Your task to perform on an android device: turn on sleep mode Image 0: 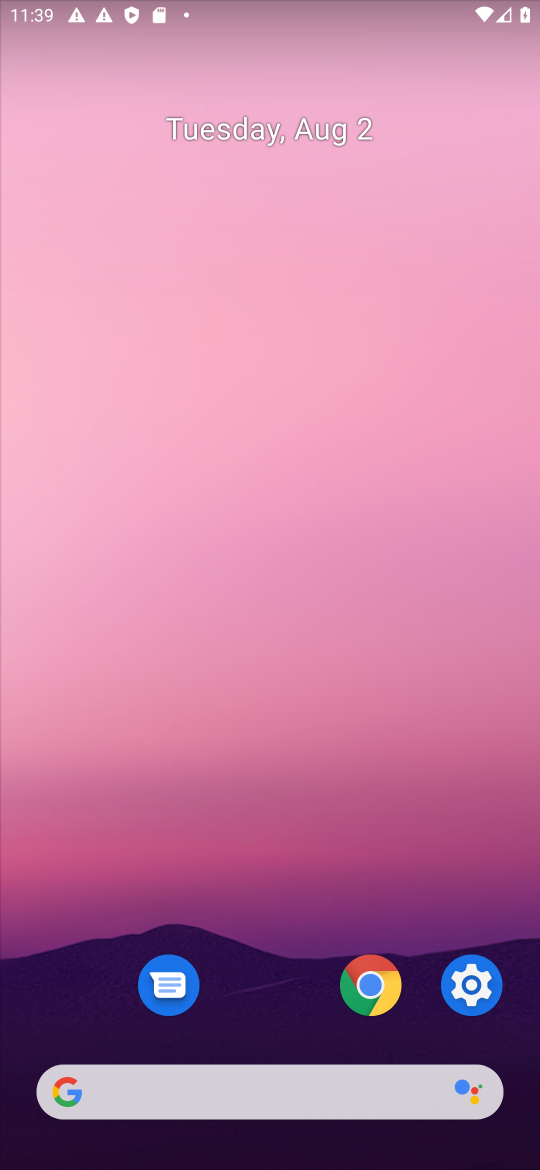
Step 0: press home button
Your task to perform on an android device: turn on sleep mode Image 1: 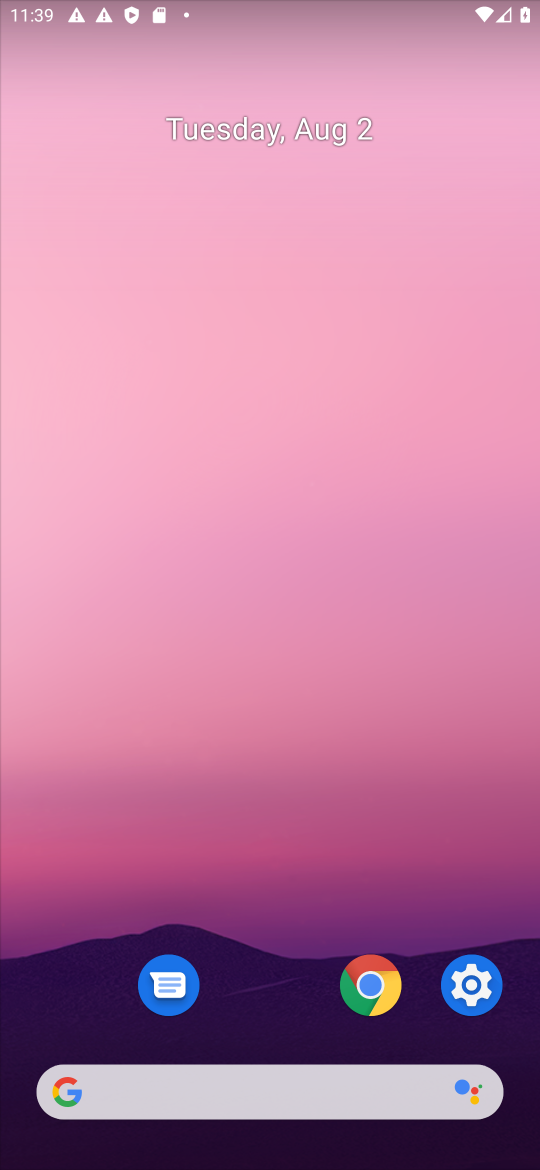
Step 1: click (449, 990)
Your task to perform on an android device: turn on sleep mode Image 2: 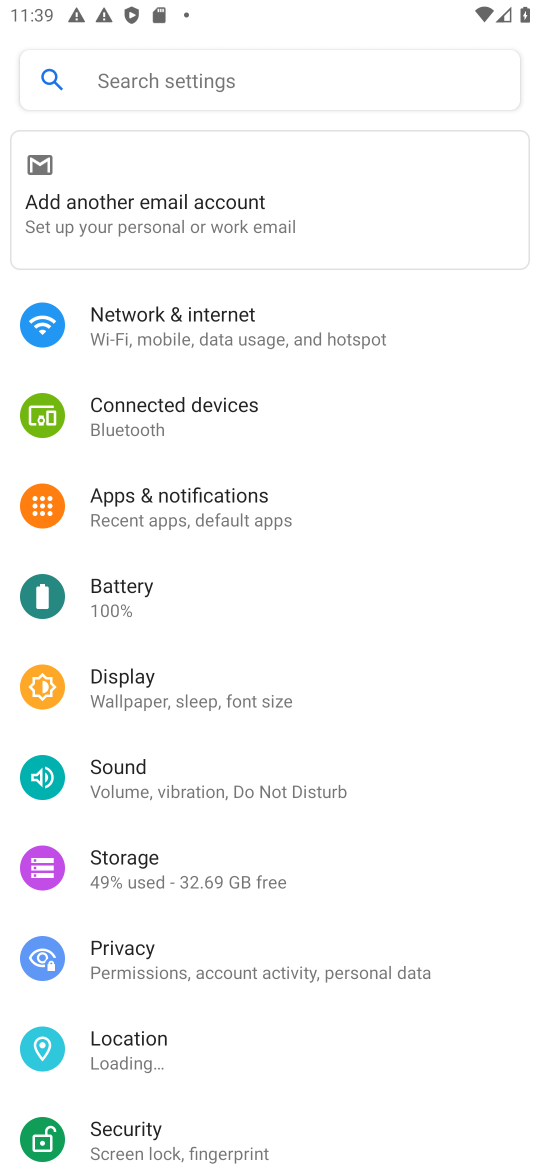
Step 2: click (144, 89)
Your task to perform on an android device: turn on sleep mode Image 3: 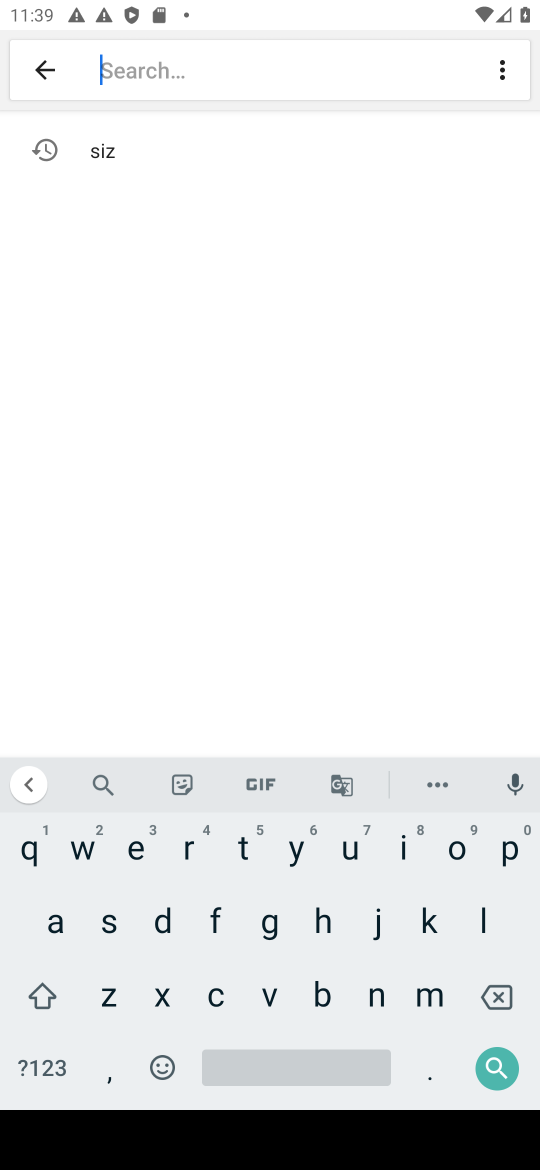
Step 3: click (97, 938)
Your task to perform on an android device: turn on sleep mode Image 4: 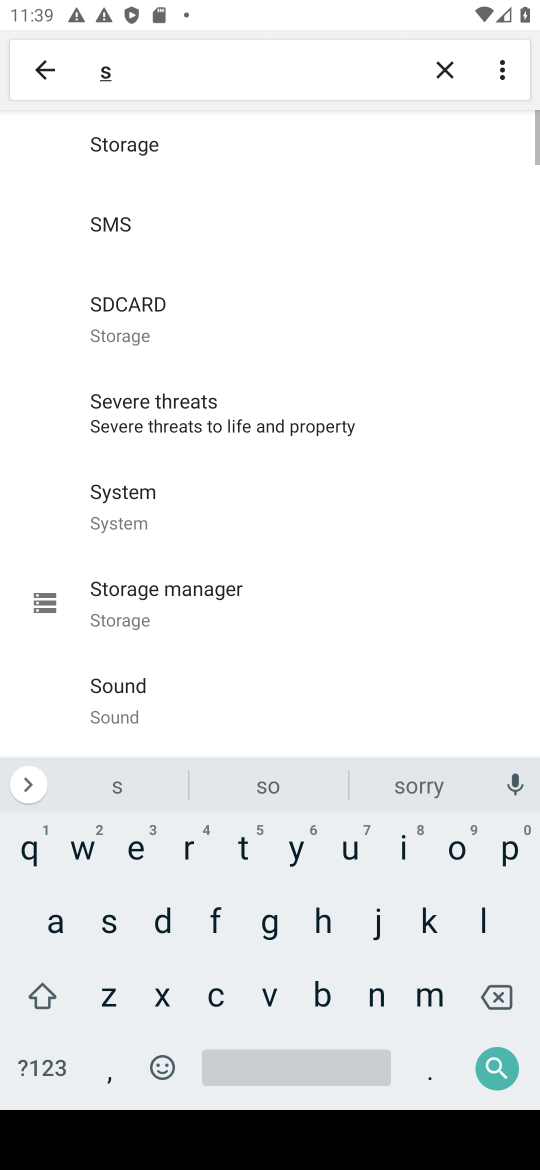
Step 4: click (476, 922)
Your task to perform on an android device: turn on sleep mode Image 5: 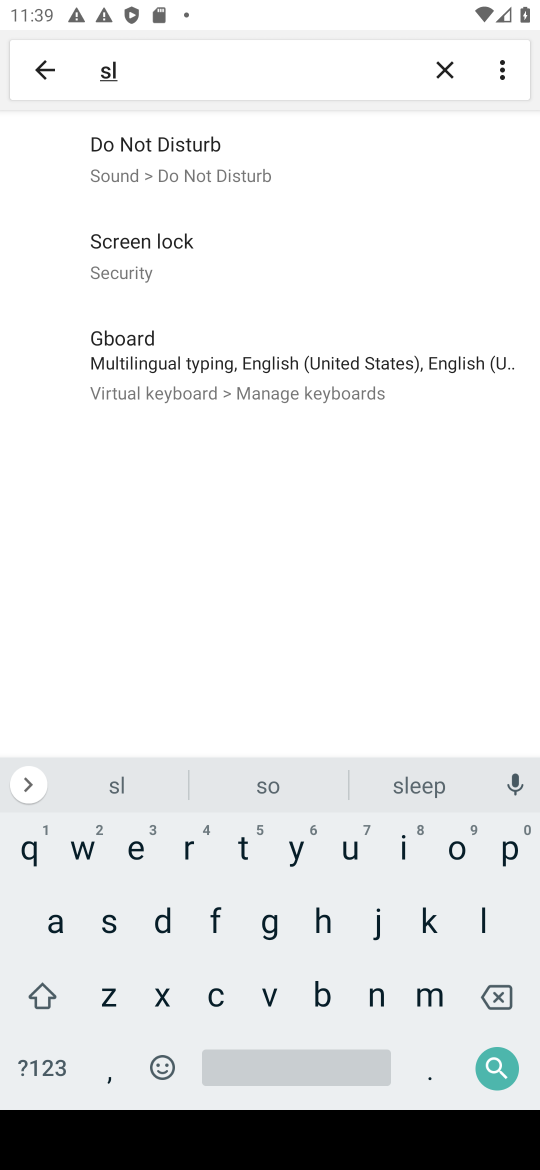
Step 5: click (209, 167)
Your task to perform on an android device: turn on sleep mode Image 6: 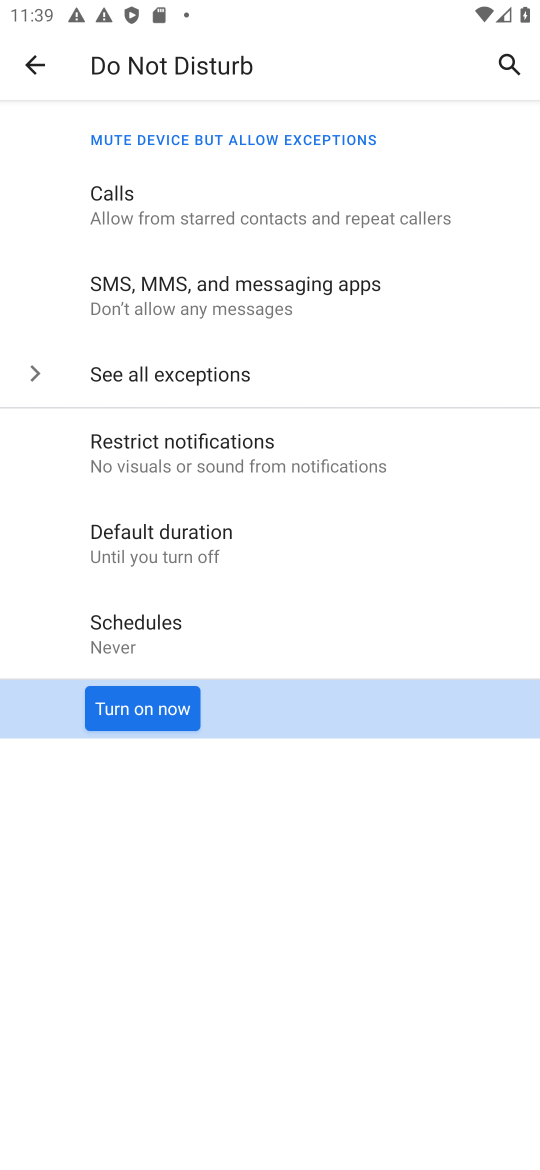
Step 6: click (117, 704)
Your task to perform on an android device: turn on sleep mode Image 7: 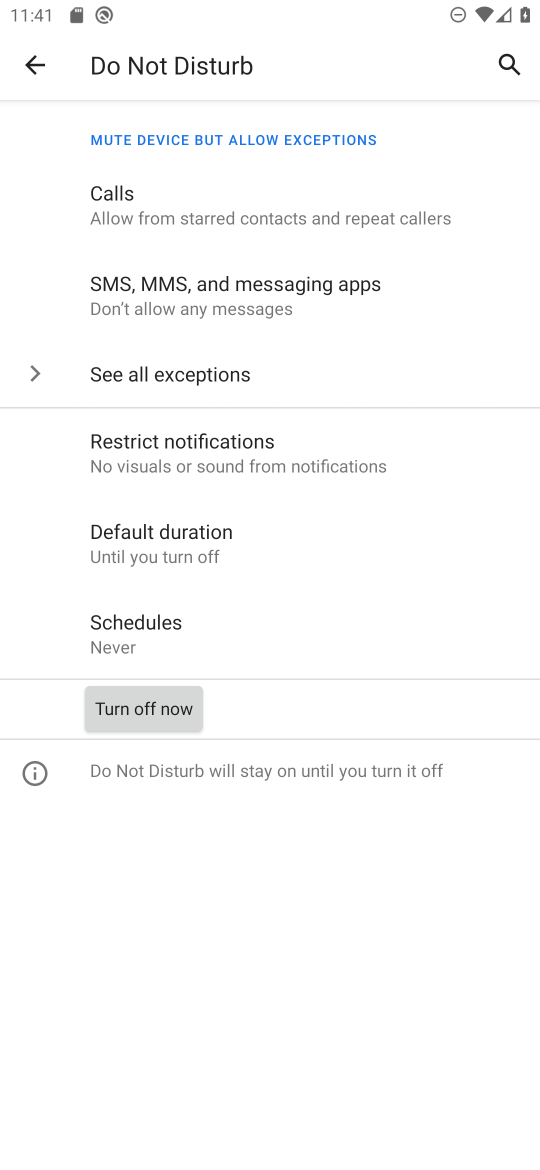
Step 7: task complete